Your task to perform on an android device: empty trash in the gmail app Image 0: 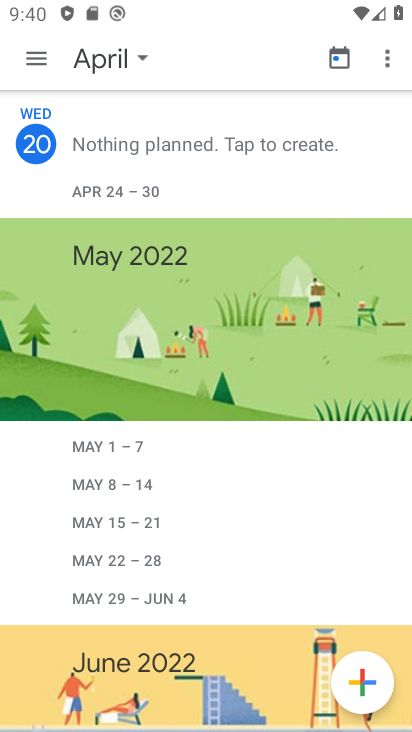
Step 0: press home button
Your task to perform on an android device: empty trash in the gmail app Image 1: 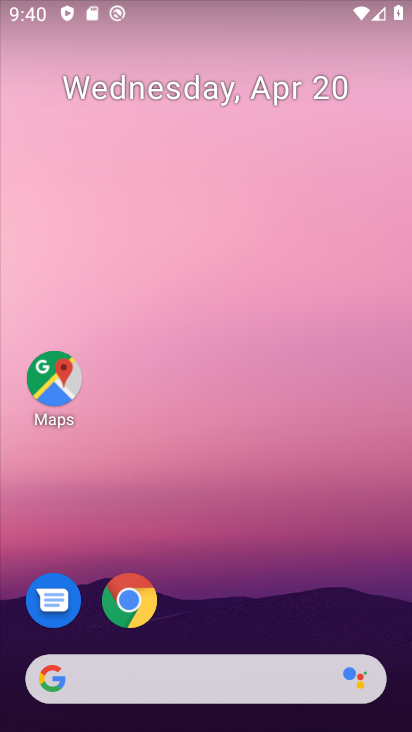
Step 1: drag from (221, 560) to (218, 173)
Your task to perform on an android device: empty trash in the gmail app Image 2: 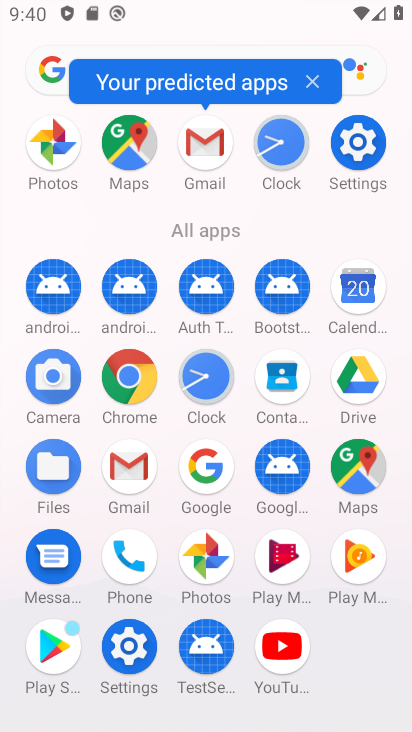
Step 2: click (203, 152)
Your task to perform on an android device: empty trash in the gmail app Image 3: 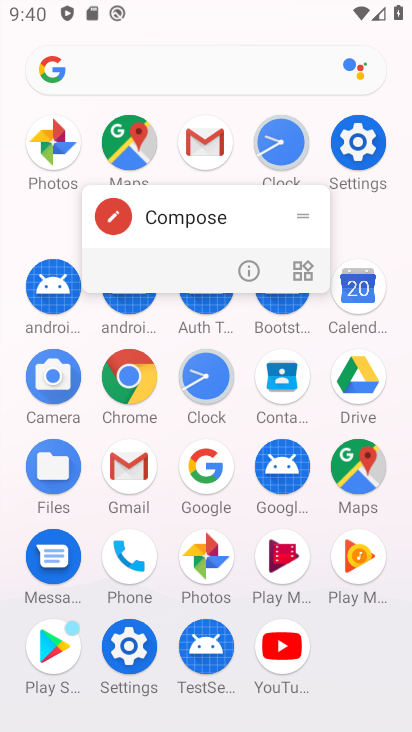
Step 3: click (195, 145)
Your task to perform on an android device: empty trash in the gmail app Image 4: 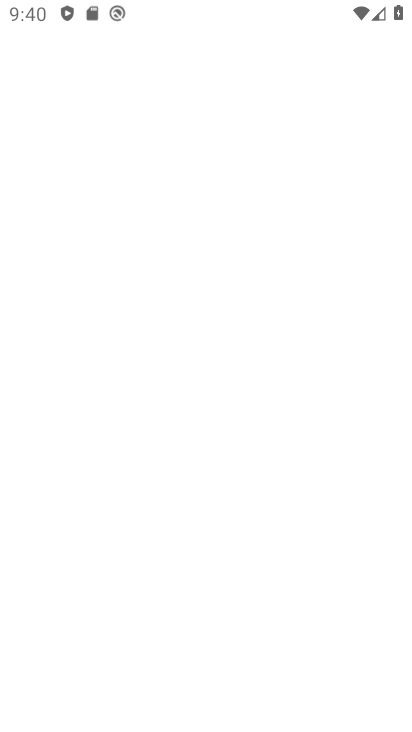
Step 4: click (208, 150)
Your task to perform on an android device: empty trash in the gmail app Image 5: 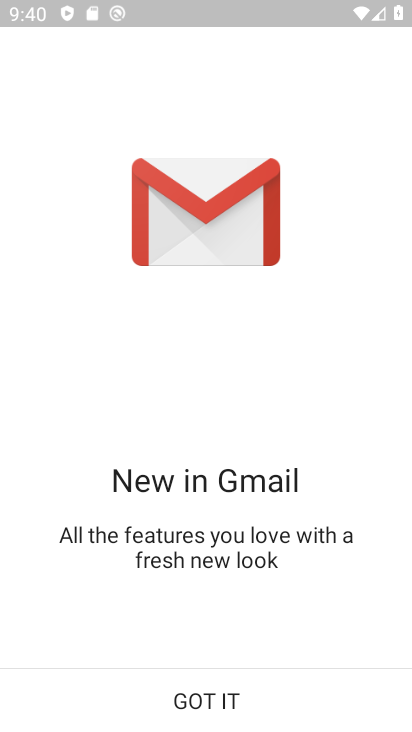
Step 5: click (222, 698)
Your task to perform on an android device: empty trash in the gmail app Image 6: 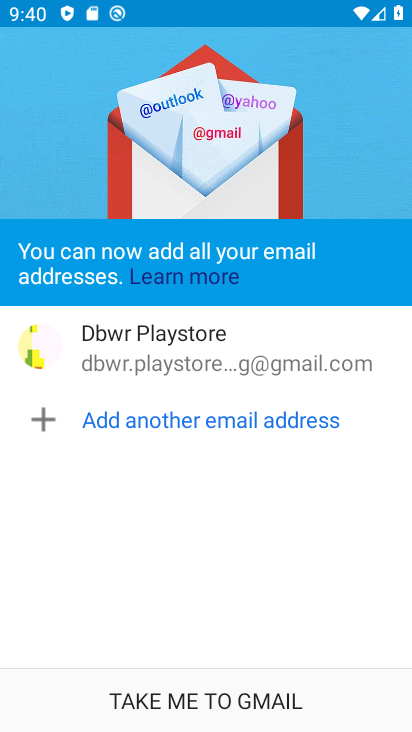
Step 6: click (225, 697)
Your task to perform on an android device: empty trash in the gmail app Image 7: 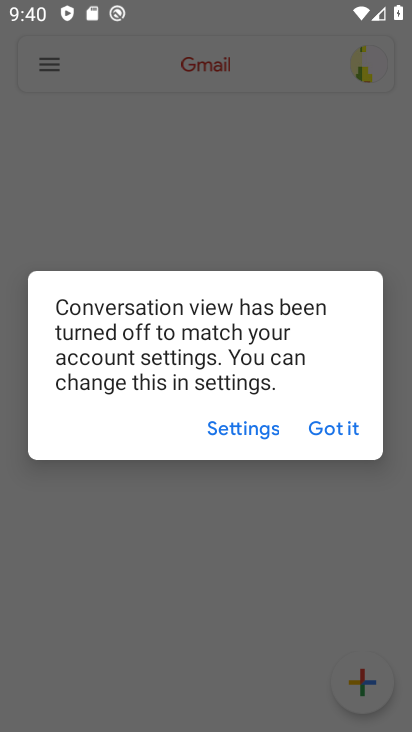
Step 7: click (327, 420)
Your task to perform on an android device: empty trash in the gmail app Image 8: 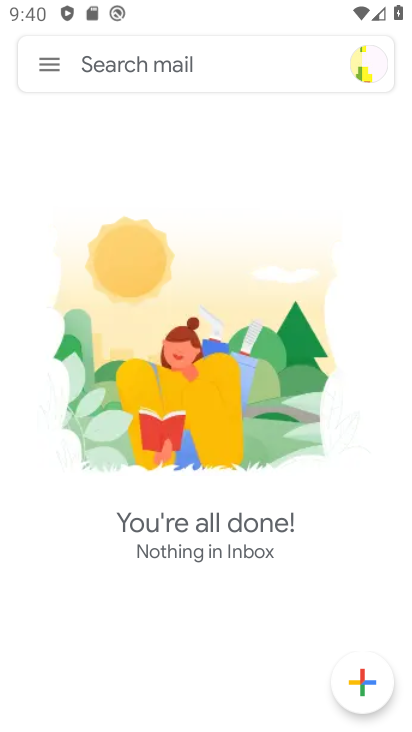
Step 8: click (47, 64)
Your task to perform on an android device: empty trash in the gmail app Image 9: 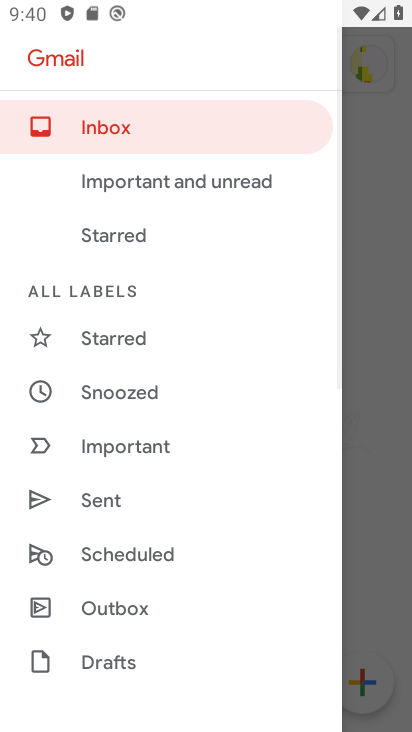
Step 9: drag from (153, 644) to (165, 207)
Your task to perform on an android device: empty trash in the gmail app Image 10: 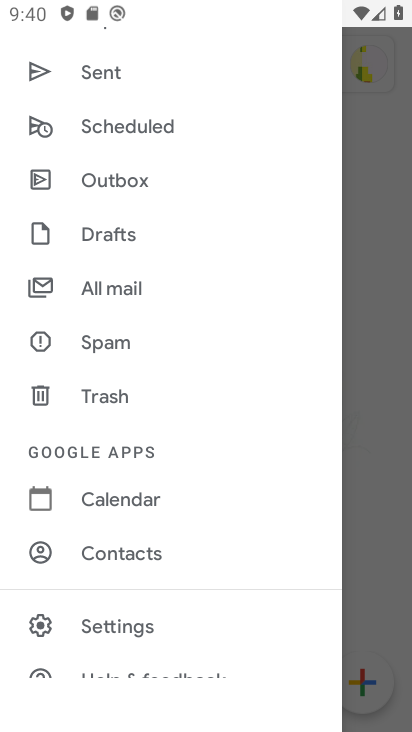
Step 10: drag from (176, 649) to (178, 397)
Your task to perform on an android device: empty trash in the gmail app Image 11: 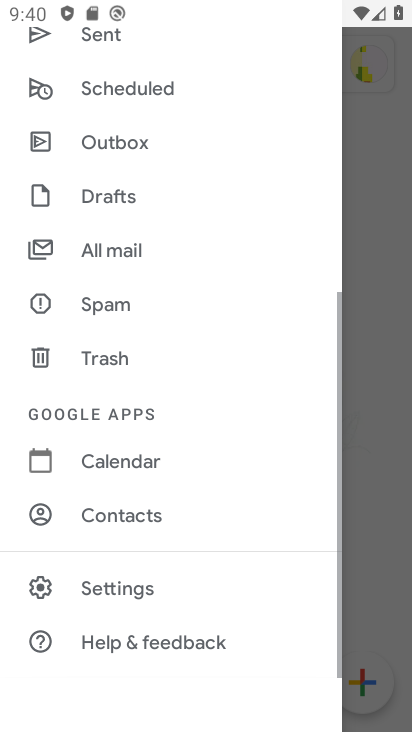
Step 11: click (105, 357)
Your task to perform on an android device: empty trash in the gmail app Image 12: 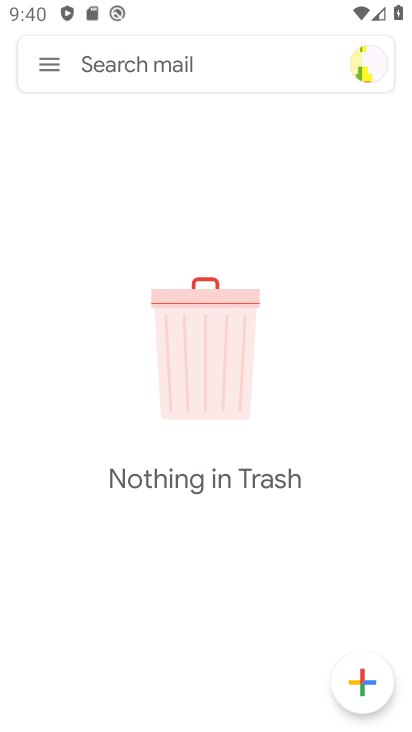
Step 12: task complete